Your task to perform on an android device: What's the weather today? Image 0: 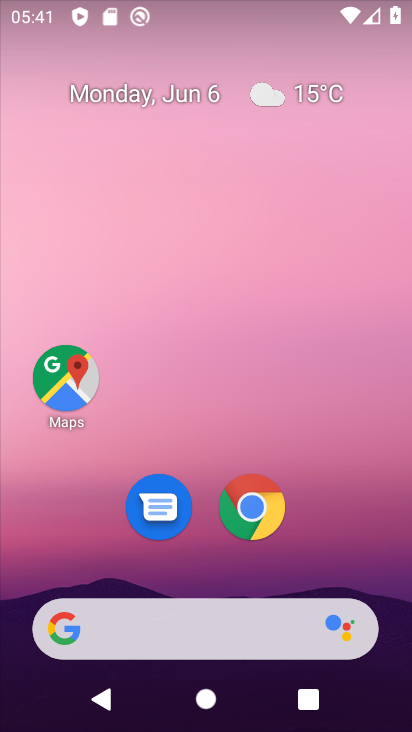
Step 0: click (180, 626)
Your task to perform on an android device: What's the weather today? Image 1: 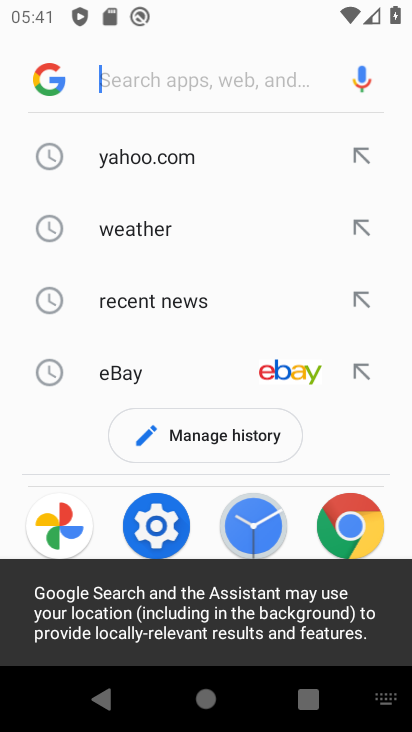
Step 1: click (129, 241)
Your task to perform on an android device: What's the weather today? Image 2: 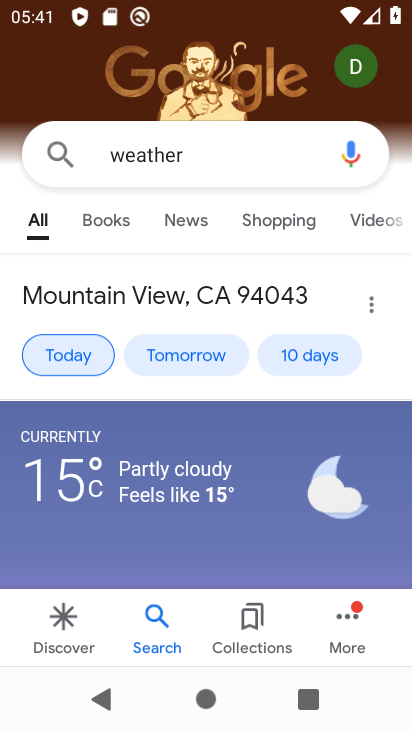
Step 2: task complete